Your task to perform on an android device: Open CNN.com Image 0: 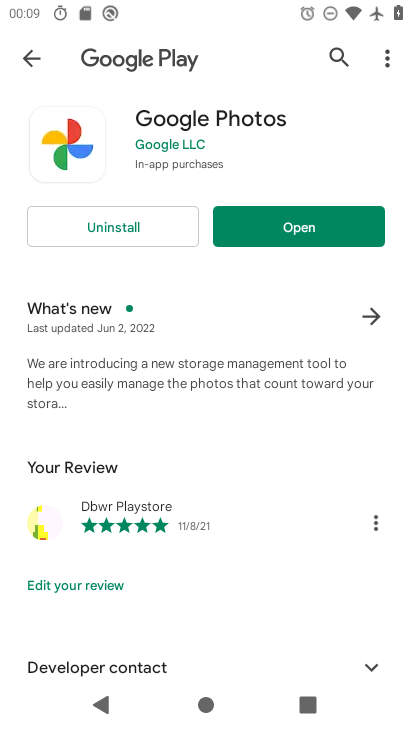
Step 0: press home button
Your task to perform on an android device: Open CNN.com Image 1: 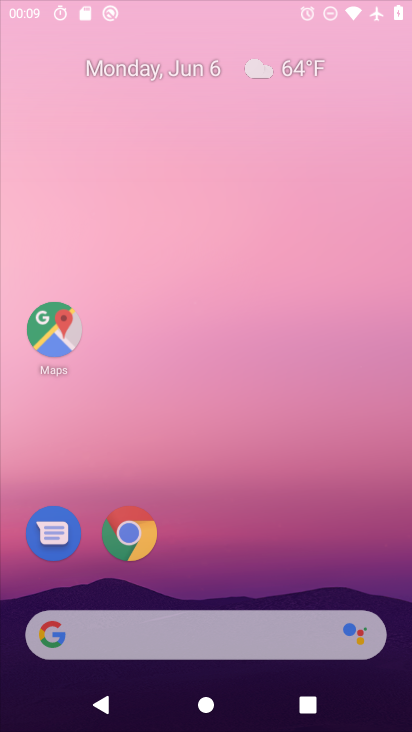
Step 1: drag from (243, 427) to (289, 13)
Your task to perform on an android device: Open CNN.com Image 2: 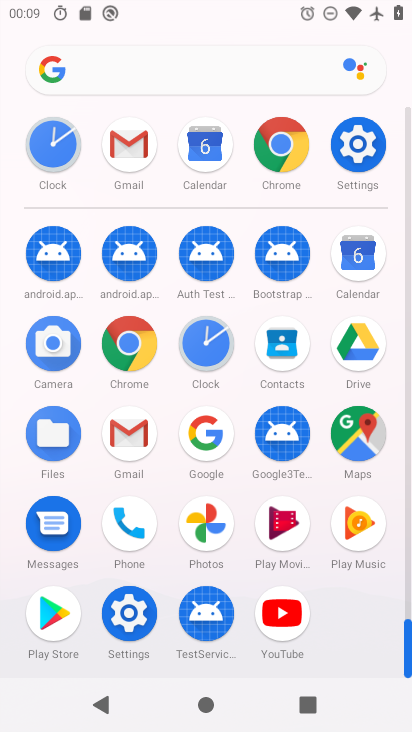
Step 2: click (98, 66)
Your task to perform on an android device: Open CNN.com Image 3: 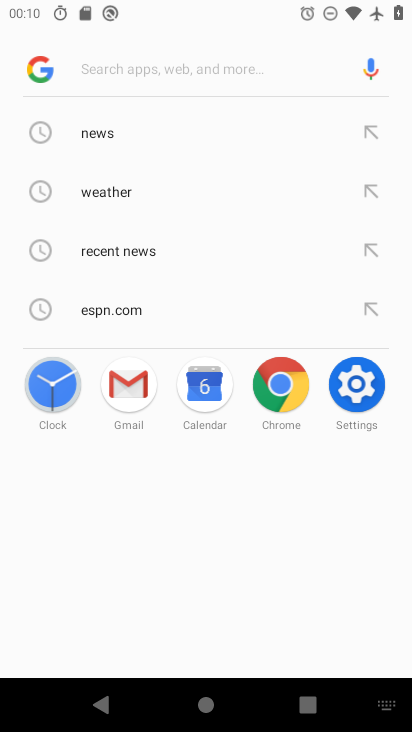
Step 3: type "CNN.com"
Your task to perform on an android device: Open CNN.com Image 4: 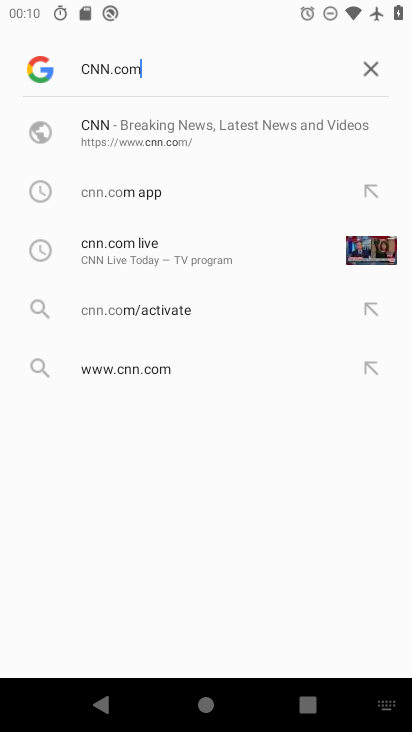
Step 4: type ""
Your task to perform on an android device: Open CNN.com Image 5: 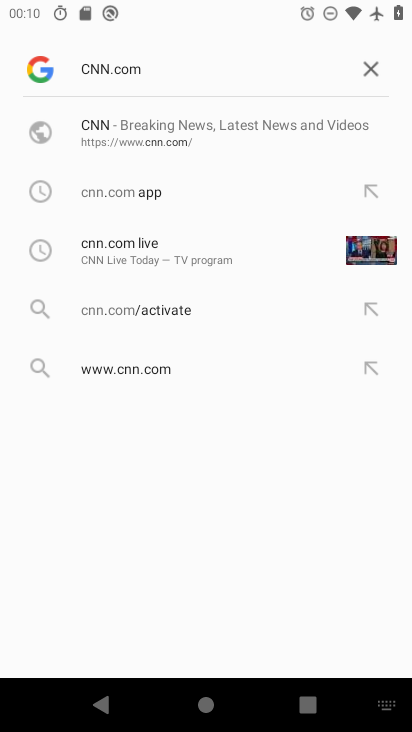
Step 5: click (120, 143)
Your task to perform on an android device: Open CNN.com Image 6: 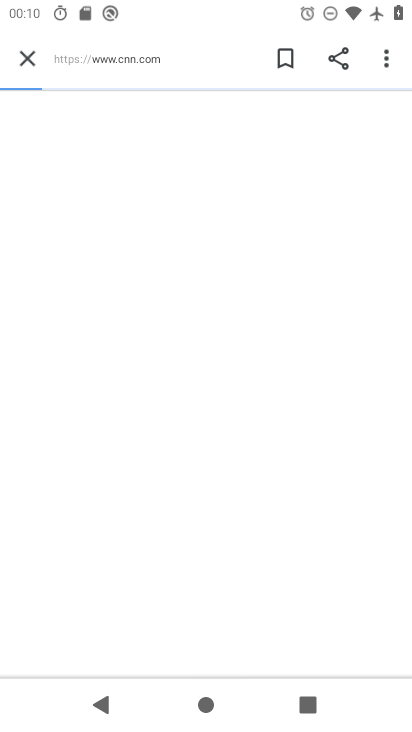
Step 6: task complete